Your task to perform on an android device: Go to calendar. Show me events next week Image 0: 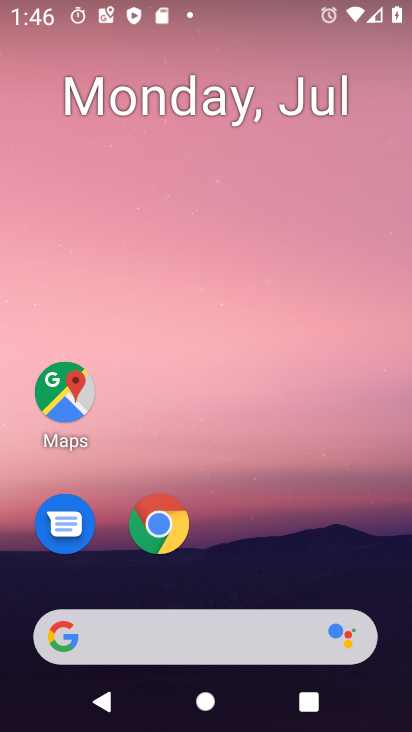
Step 0: press home button
Your task to perform on an android device: Go to calendar. Show me events next week Image 1: 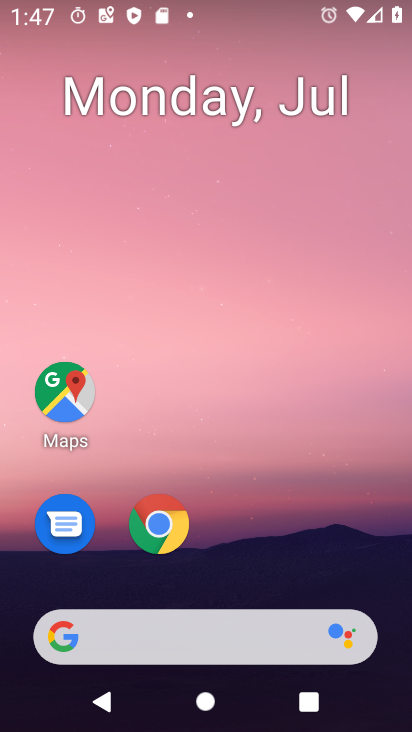
Step 1: drag from (329, 553) to (306, 25)
Your task to perform on an android device: Go to calendar. Show me events next week Image 2: 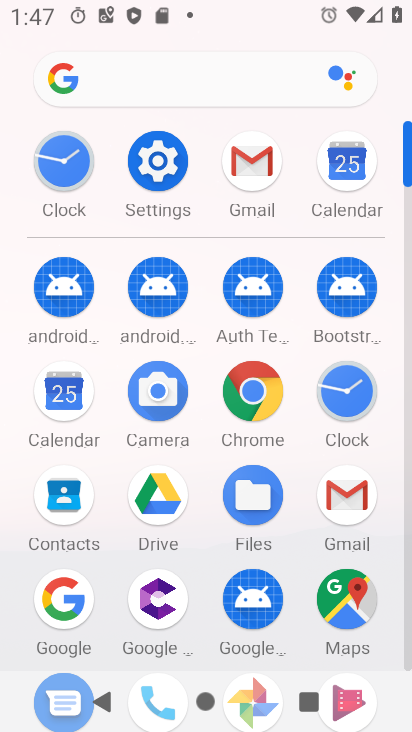
Step 2: click (58, 394)
Your task to perform on an android device: Go to calendar. Show me events next week Image 3: 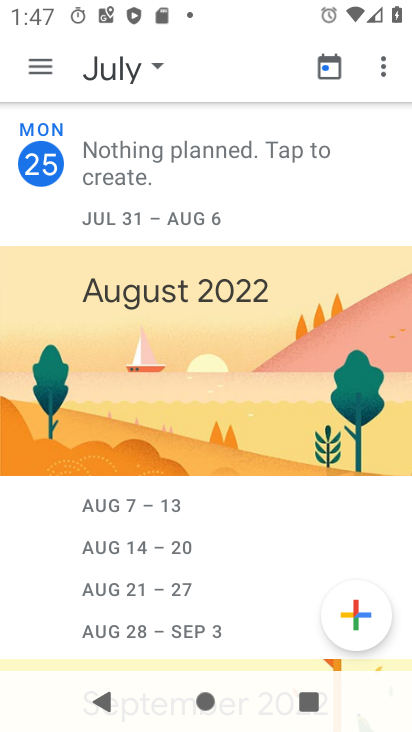
Step 3: click (46, 68)
Your task to perform on an android device: Go to calendar. Show me events next week Image 4: 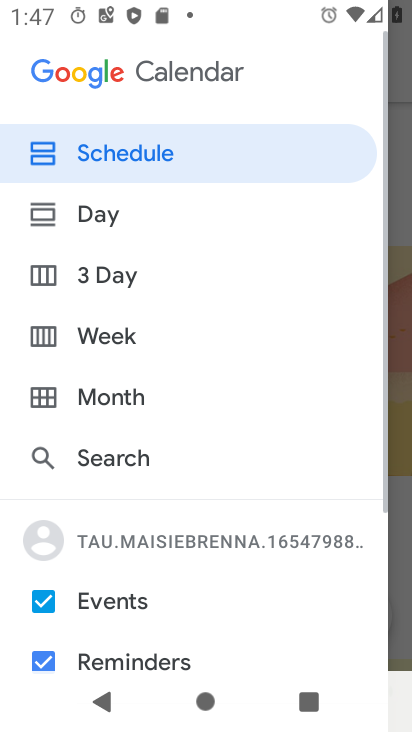
Step 4: click (112, 339)
Your task to perform on an android device: Go to calendar. Show me events next week Image 5: 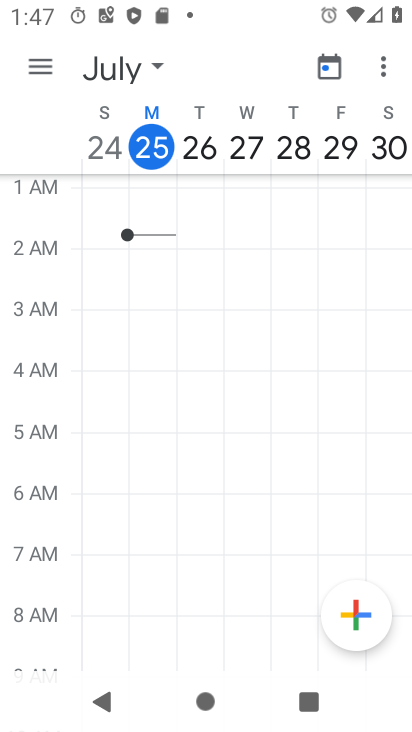
Step 5: task complete